Your task to perform on an android device: turn pop-ups on in chrome Image 0: 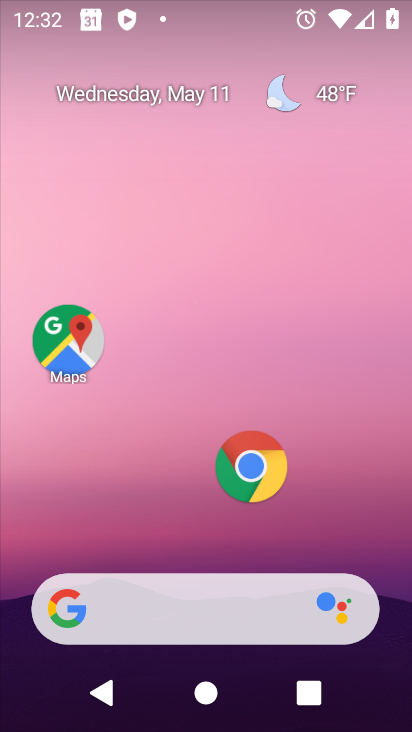
Step 0: click (269, 464)
Your task to perform on an android device: turn pop-ups on in chrome Image 1: 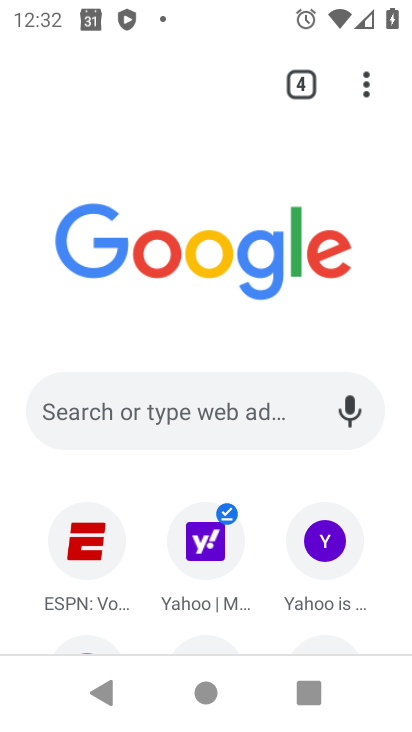
Step 1: drag from (370, 75) to (146, 511)
Your task to perform on an android device: turn pop-ups on in chrome Image 2: 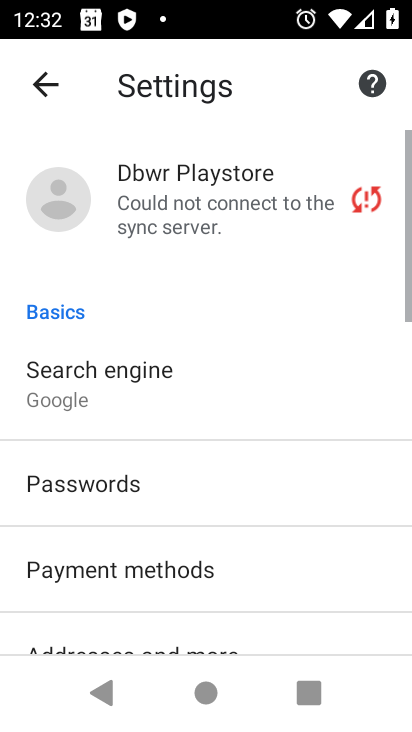
Step 2: drag from (156, 608) to (271, 130)
Your task to perform on an android device: turn pop-ups on in chrome Image 3: 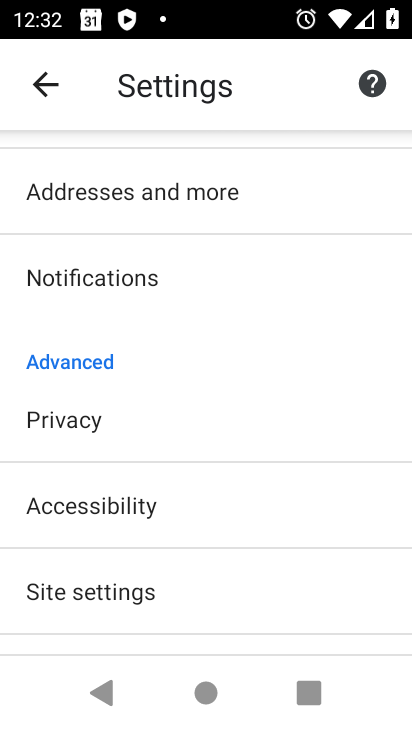
Step 3: click (88, 597)
Your task to perform on an android device: turn pop-ups on in chrome Image 4: 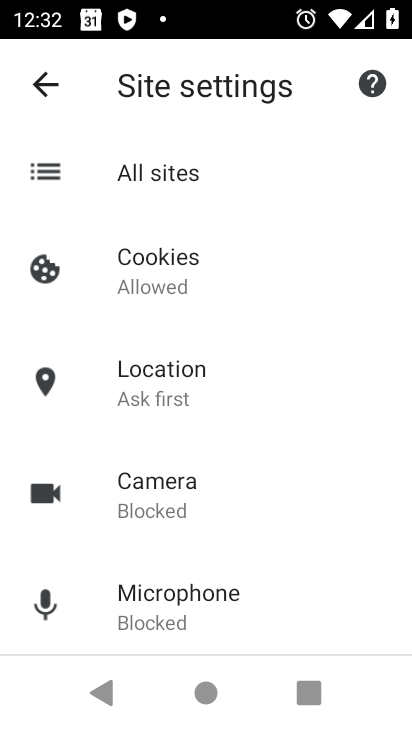
Step 4: drag from (160, 610) to (308, 77)
Your task to perform on an android device: turn pop-ups on in chrome Image 5: 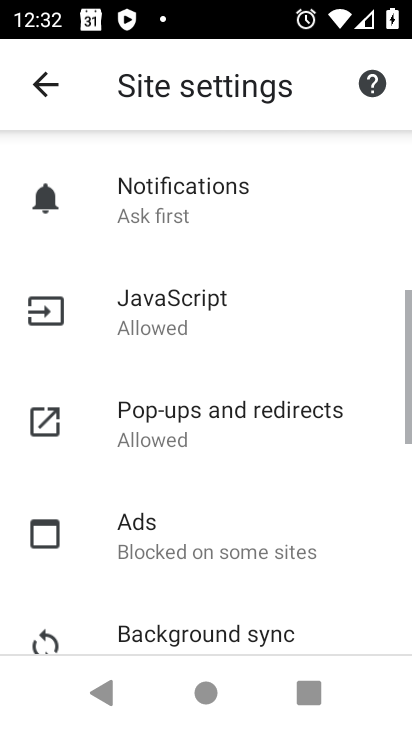
Step 5: click (199, 440)
Your task to perform on an android device: turn pop-ups on in chrome Image 6: 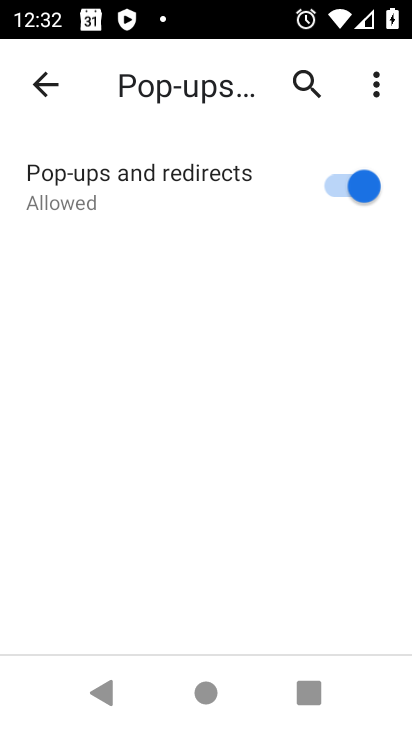
Step 6: task complete